Your task to perform on an android device: Search for the new ikea dresser Image 0: 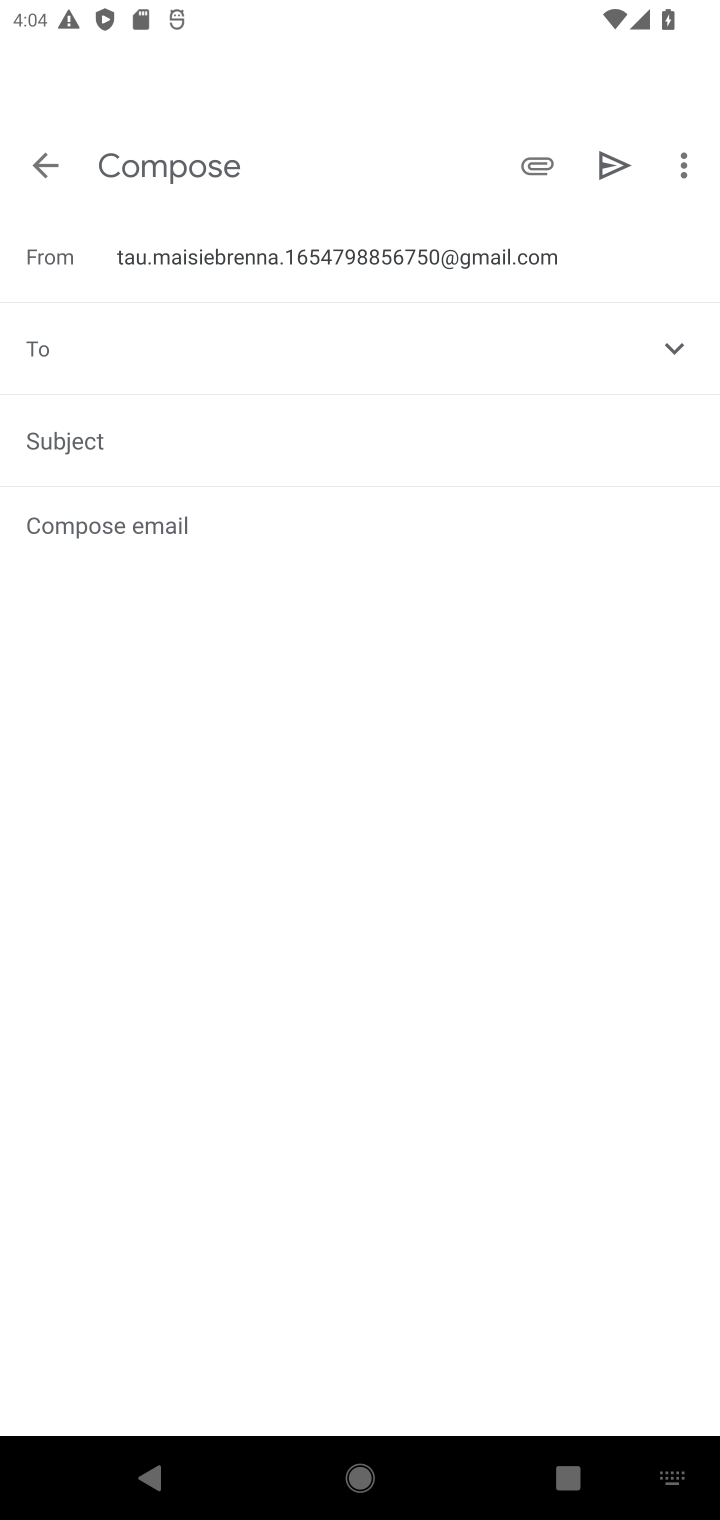
Step 0: press home button
Your task to perform on an android device: Search for the new ikea dresser Image 1: 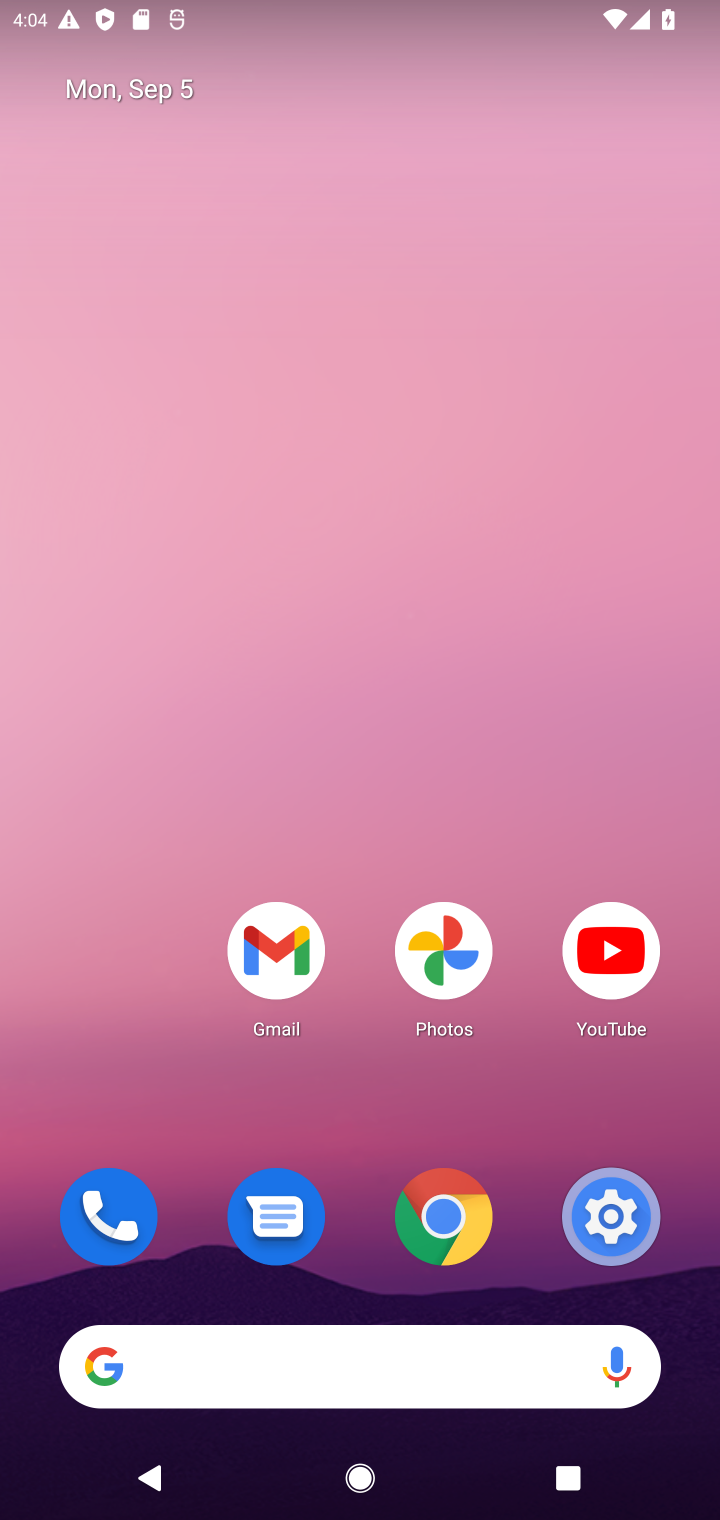
Step 1: click (92, 1376)
Your task to perform on an android device: Search for the new ikea dresser Image 2: 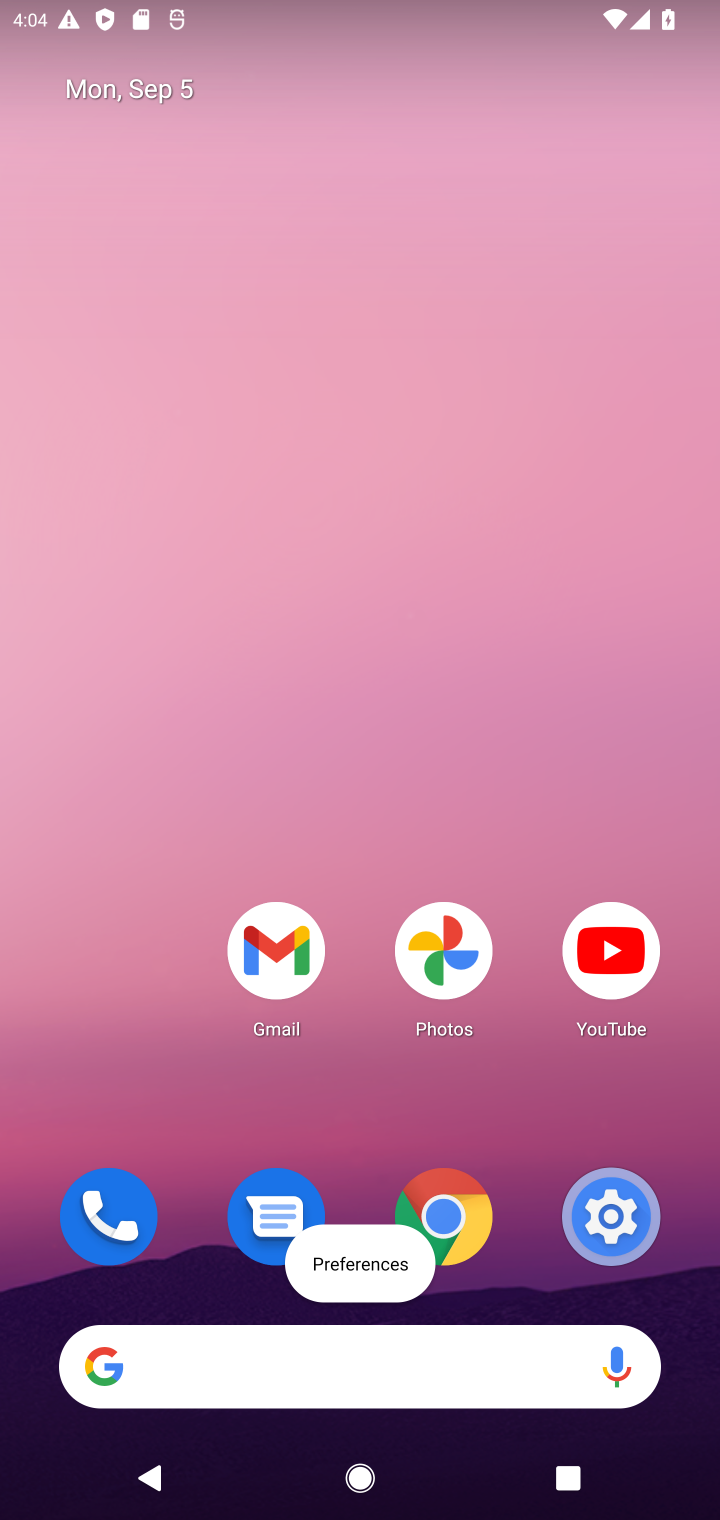
Step 2: click (90, 1372)
Your task to perform on an android device: Search for the new ikea dresser Image 3: 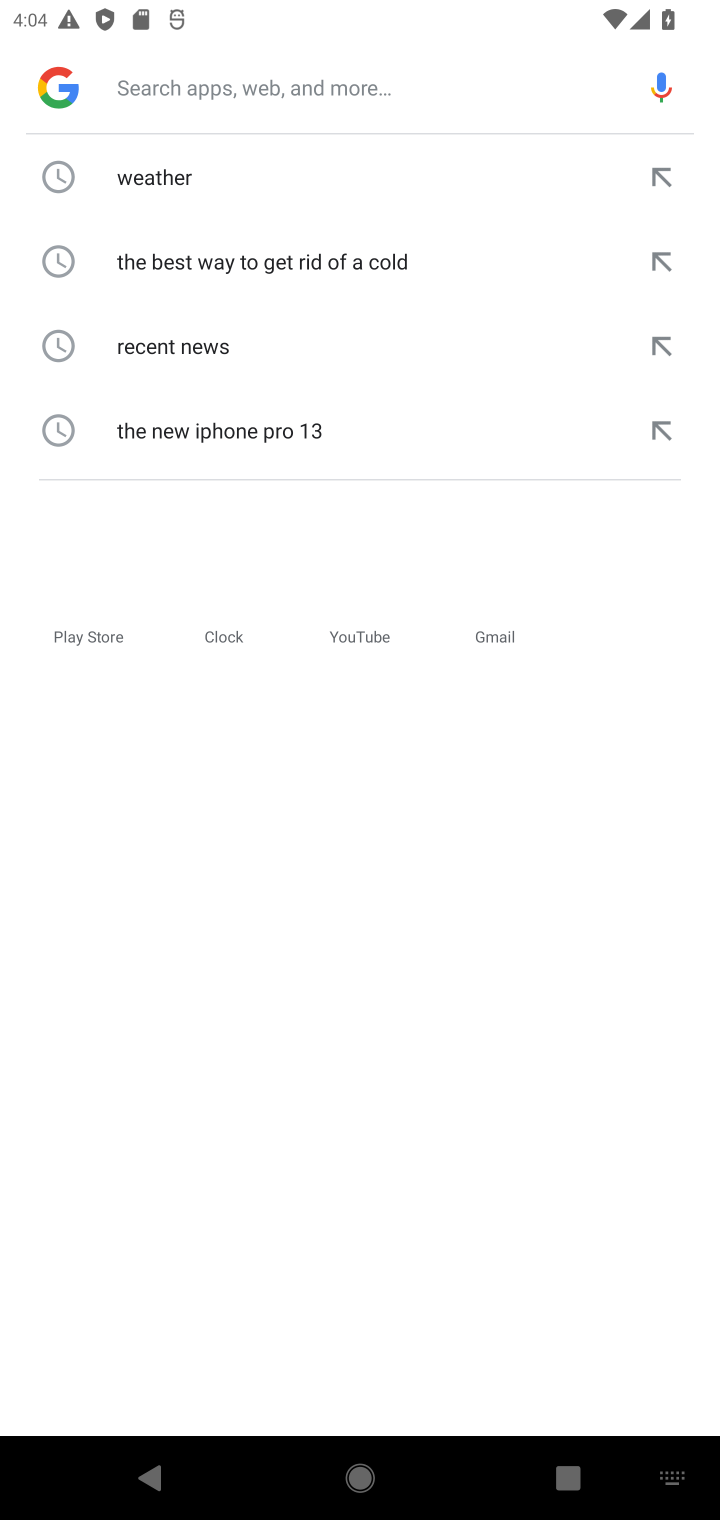
Step 3: type "new ikea dresser"
Your task to perform on an android device: Search for the new ikea dresser Image 4: 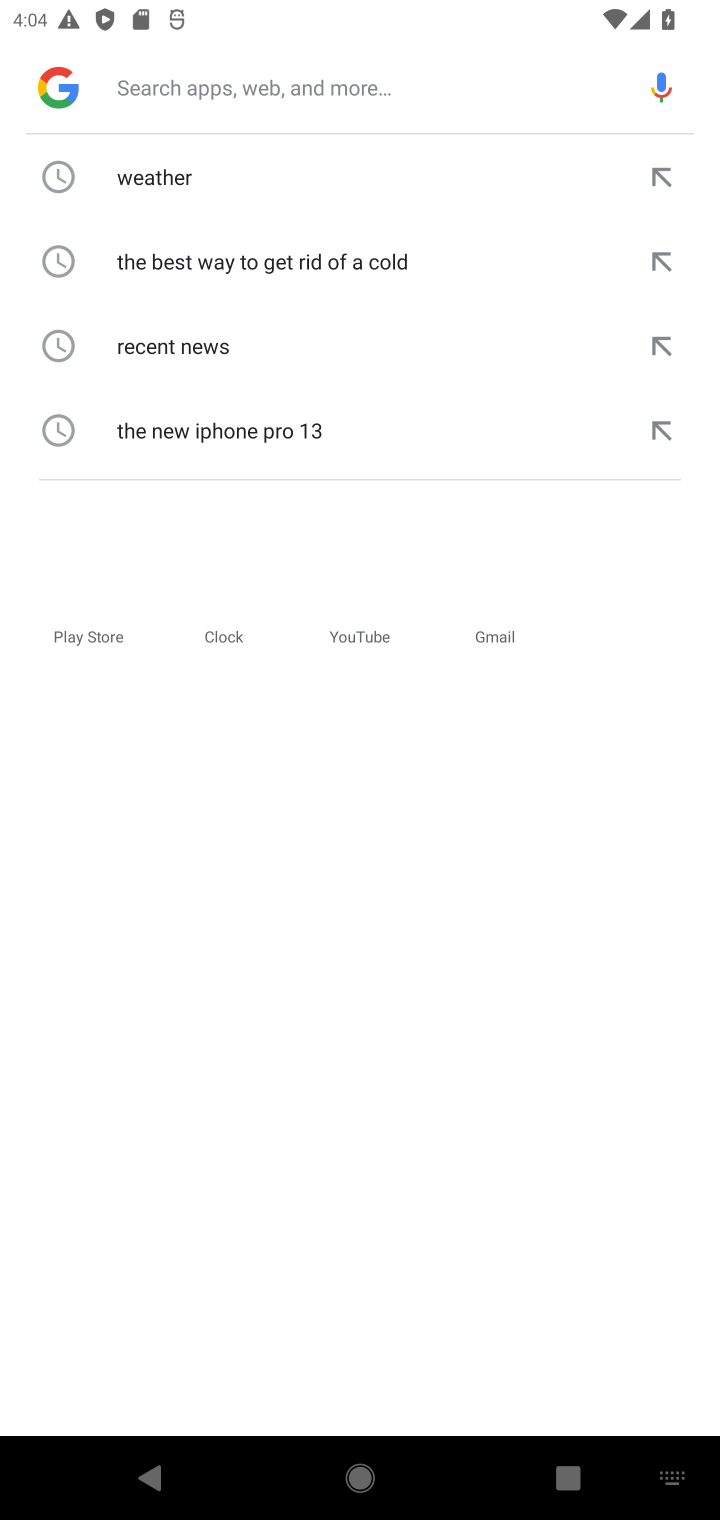
Step 4: click (208, 93)
Your task to perform on an android device: Search for the new ikea dresser Image 5: 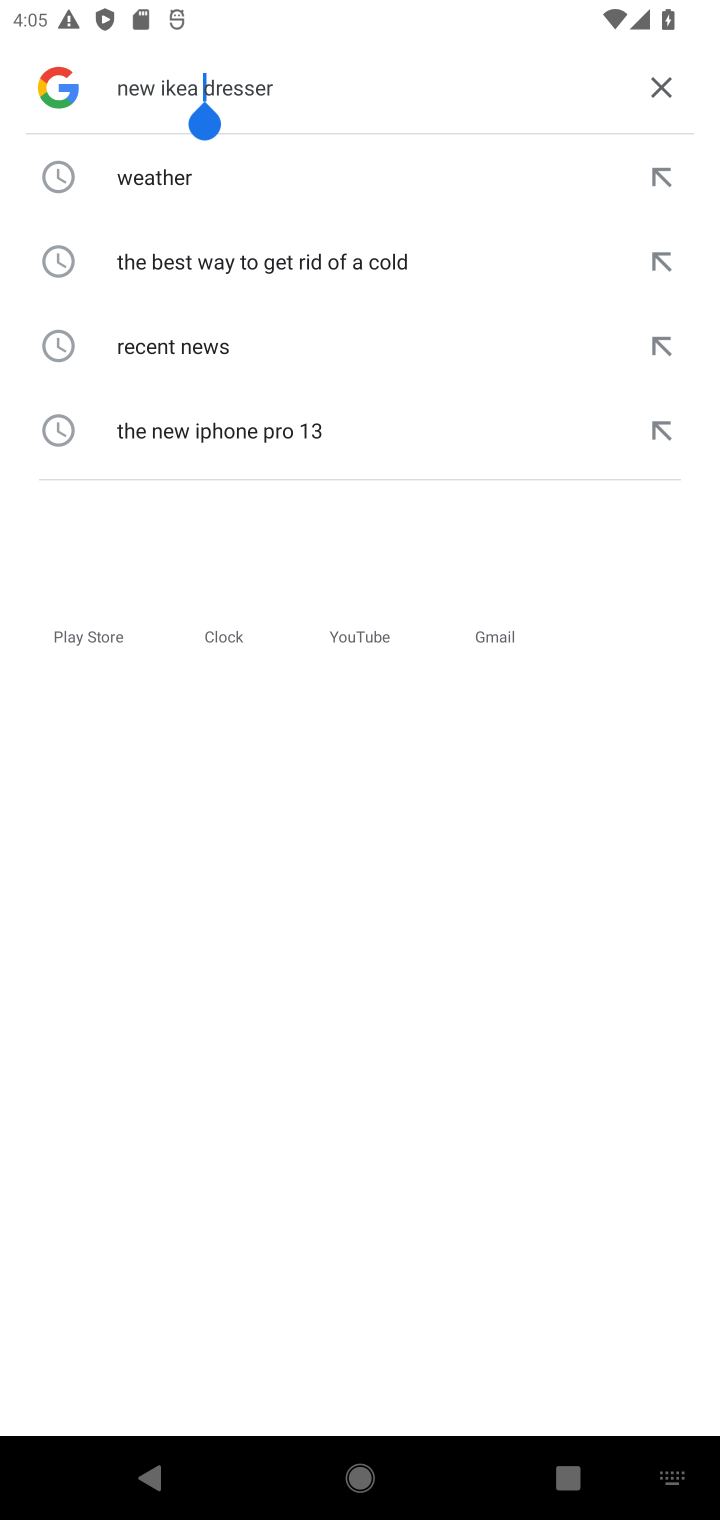
Step 5: press enter
Your task to perform on an android device: Search for the new ikea dresser Image 6: 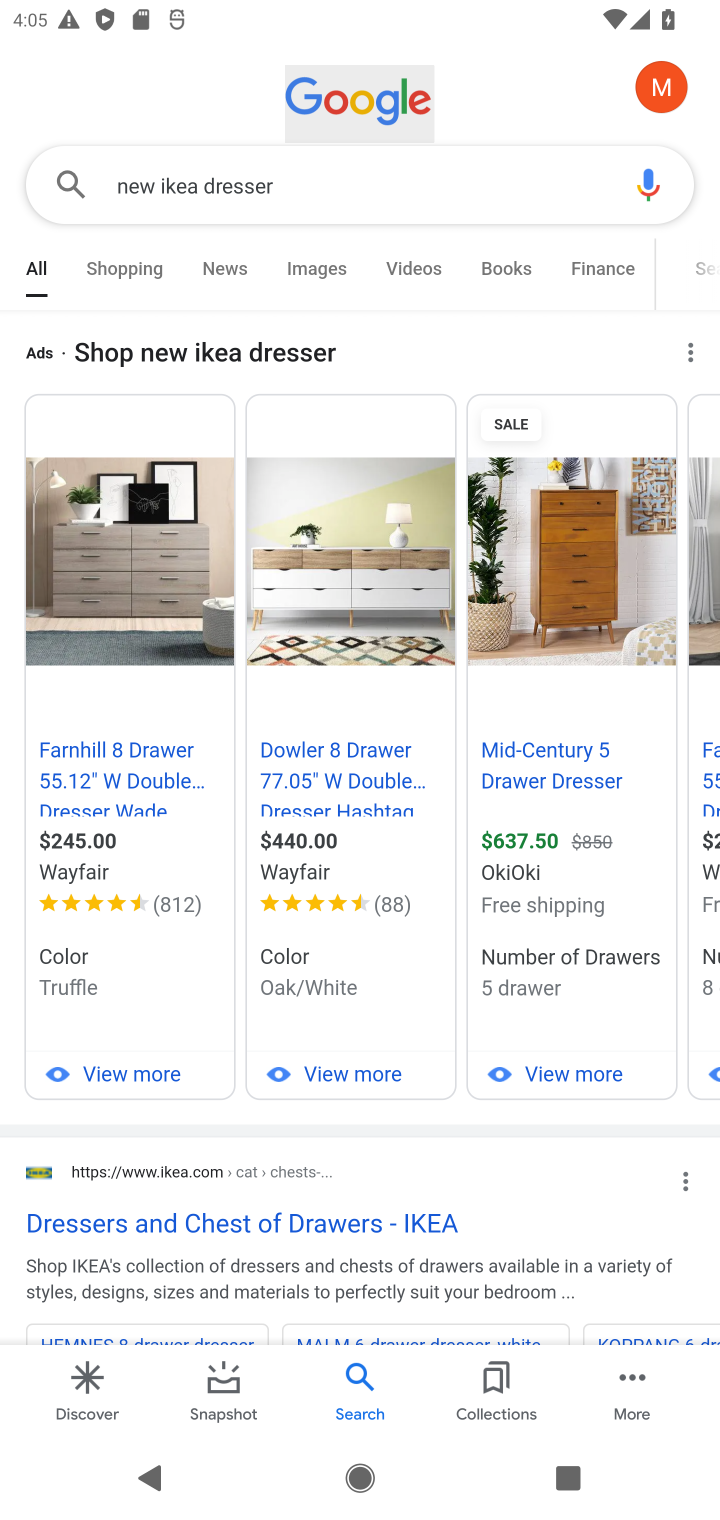
Step 6: task complete